Your task to perform on an android device: delete a single message in the gmail app Image 0: 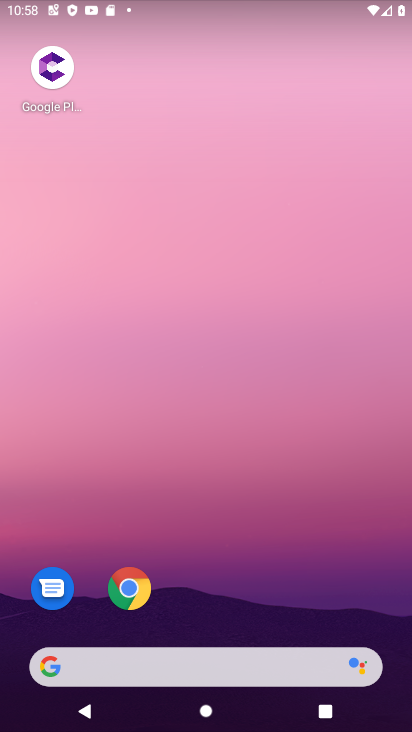
Step 0: drag from (194, 662) to (323, 125)
Your task to perform on an android device: delete a single message in the gmail app Image 1: 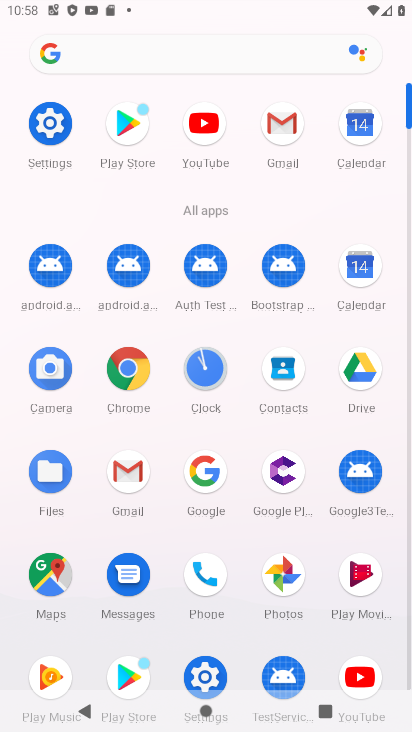
Step 1: click (282, 124)
Your task to perform on an android device: delete a single message in the gmail app Image 2: 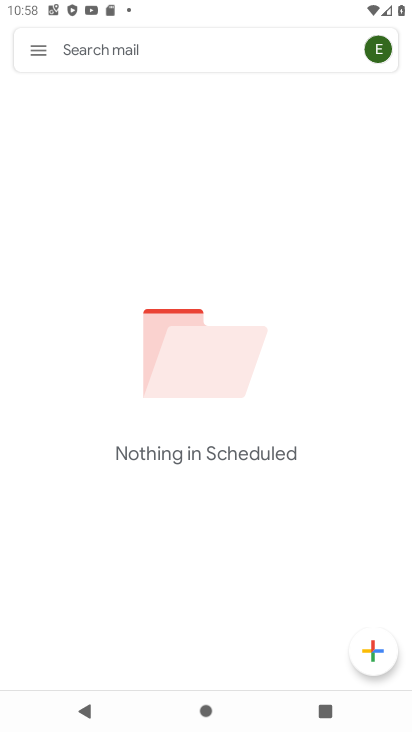
Step 2: click (36, 56)
Your task to perform on an android device: delete a single message in the gmail app Image 3: 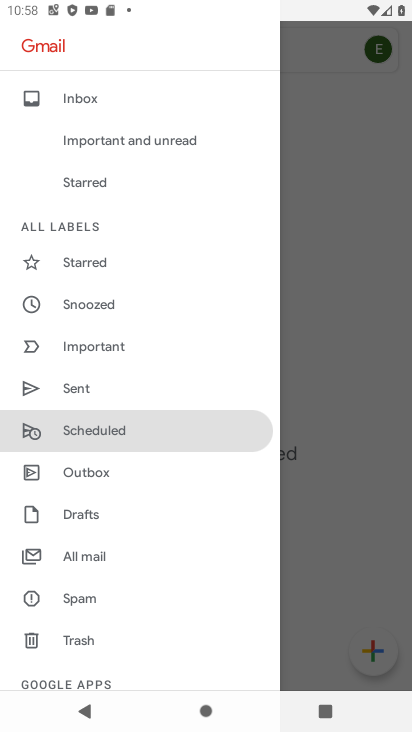
Step 3: click (71, 95)
Your task to perform on an android device: delete a single message in the gmail app Image 4: 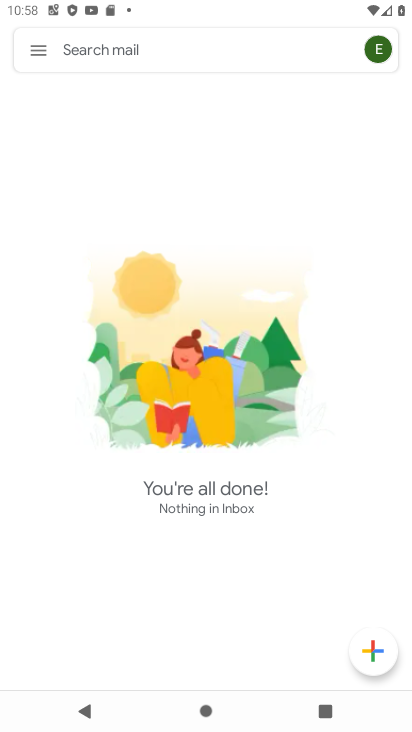
Step 4: click (39, 53)
Your task to perform on an android device: delete a single message in the gmail app Image 5: 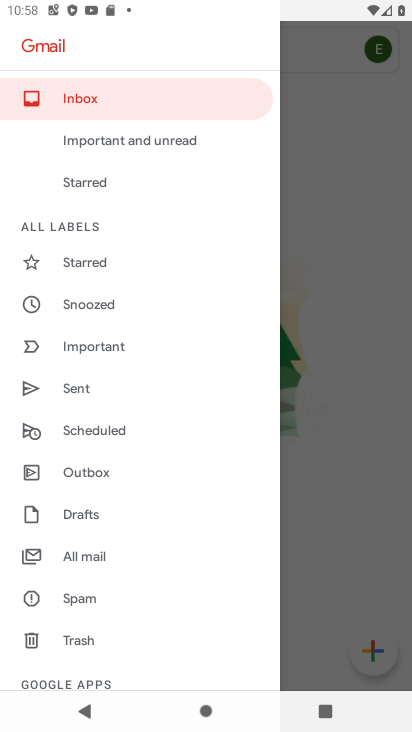
Step 5: click (78, 140)
Your task to perform on an android device: delete a single message in the gmail app Image 6: 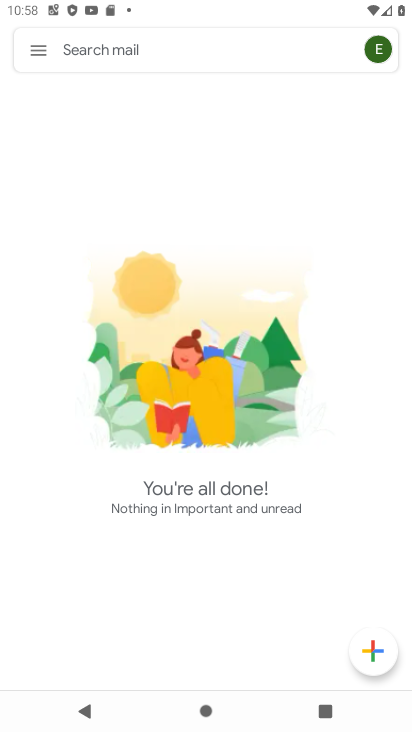
Step 6: click (34, 55)
Your task to perform on an android device: delete a single message in the gmail app Image 7: 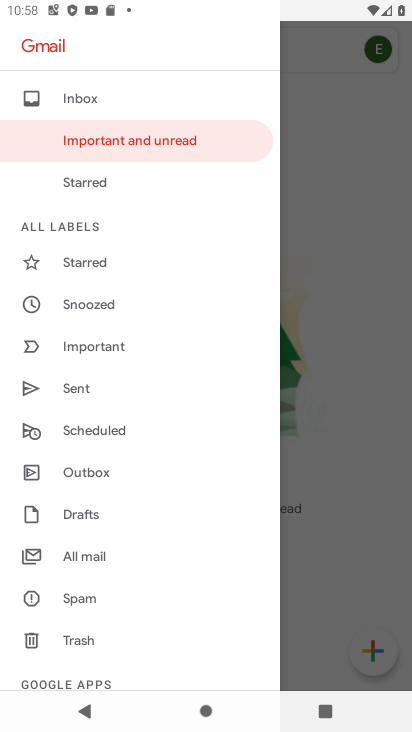
Step 7: click (85, 180)
Your task to perform on an android device: delete a single message in the gmail app Image 8: 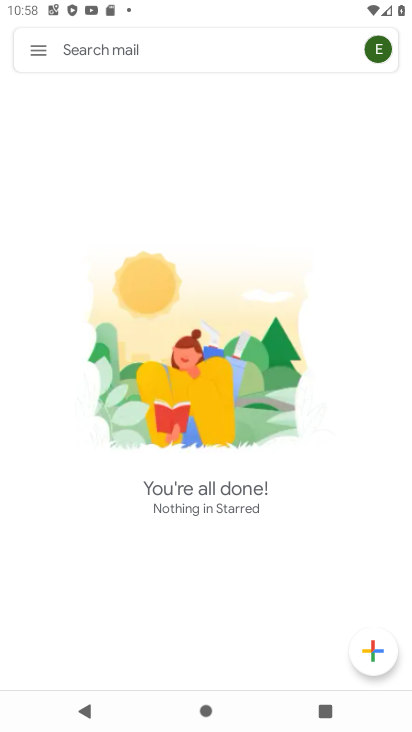
Step 8: click (32, 43)
Your task to perform on an android device: delete a single message in the gmail app Image 9: 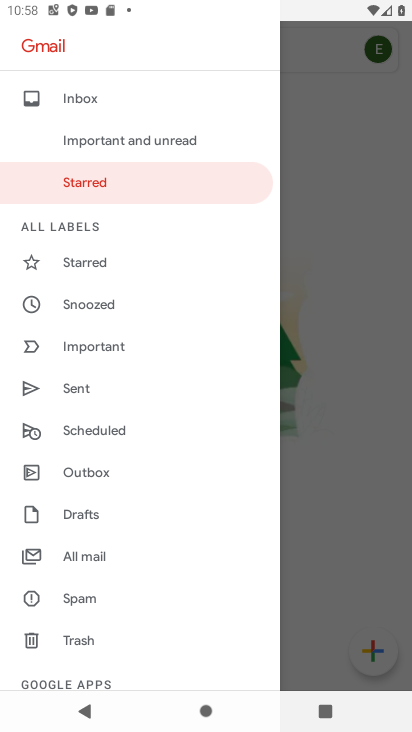
Step 9: click (85, 262)
Your task to perform on an android device: delete a single message in the gmail app Image 10: 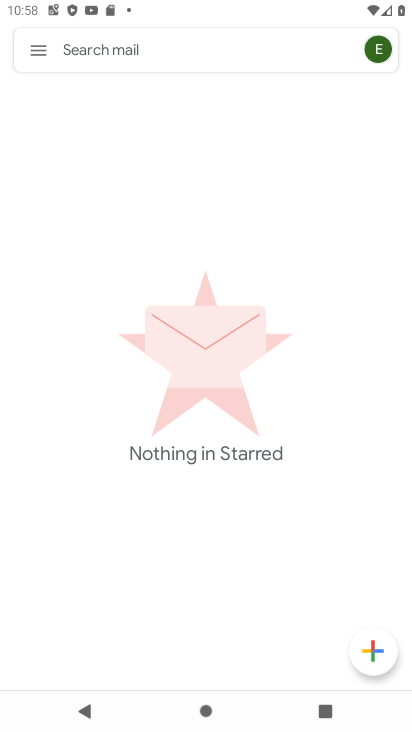
Step 10: click (34, 55)
Your task to perform on an android device: delete a single message in the gmail app Image 11: 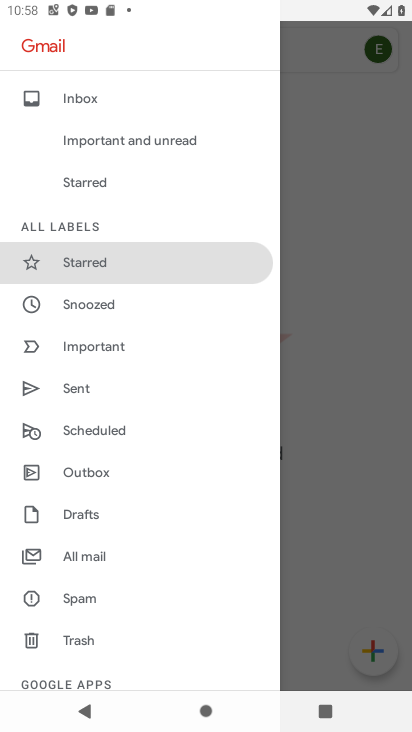
Step 11: click (65, 302)
Your task to perform on an android device: delete a single message in the gmail app Image 12: 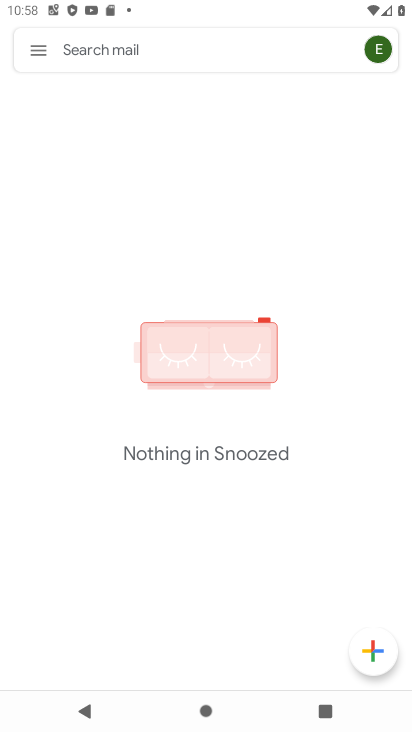
Step 12: click (31, 45)
Your task to perform on an android device: delete a single message in the gmail app Image 13: 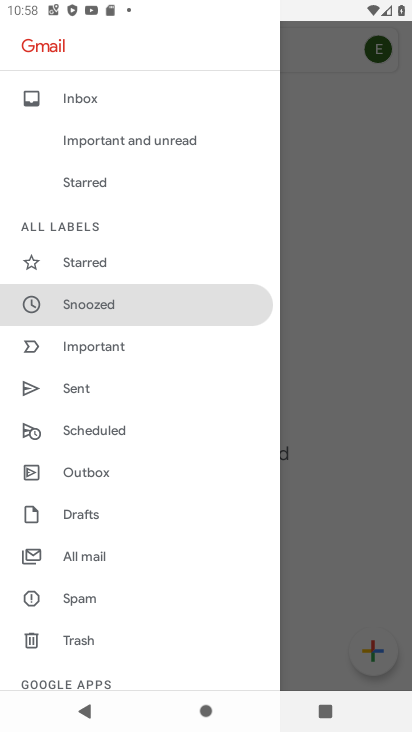
Step 13: click (80, 343)
Your task to perform on an android device: delete a single message in the gmail app Image 14: 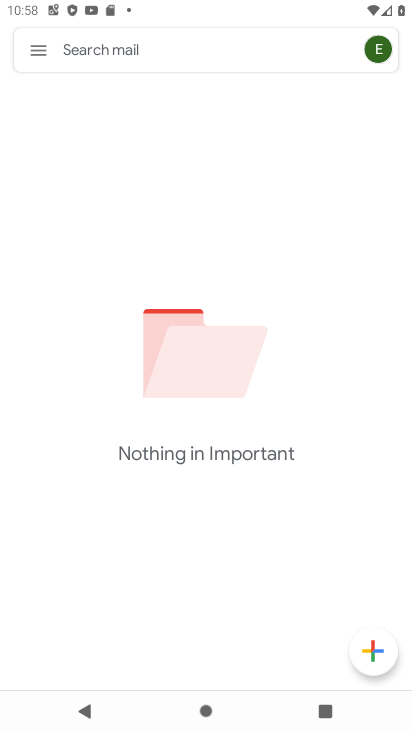
Step 14: click (25, 51)
Your task to perform on an android device: delete a single message in the gmail app Image 15: 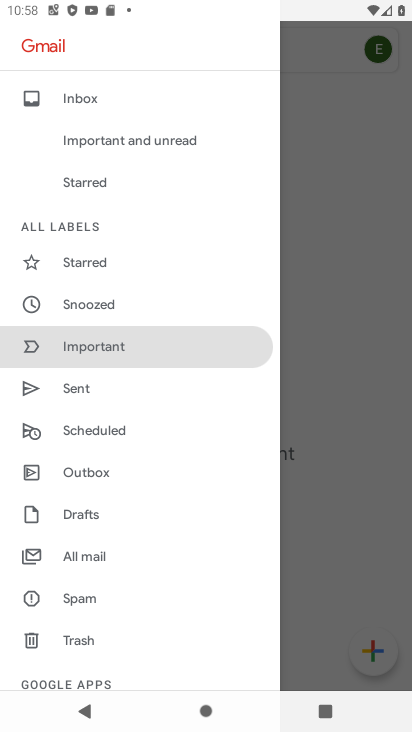
Step 15: click (84, 398)
Your task to perform on an android device: delete a single message in the gmail app Image 16: 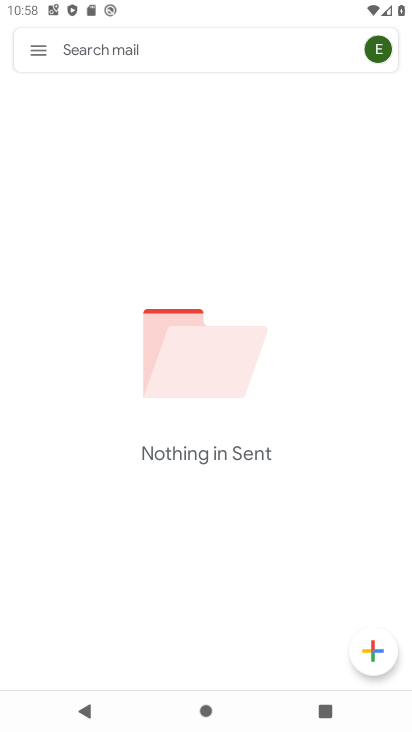
Step 16: click (44, 45)
Your task to perform on an android device: delete a single message in the gmail app Image 17: 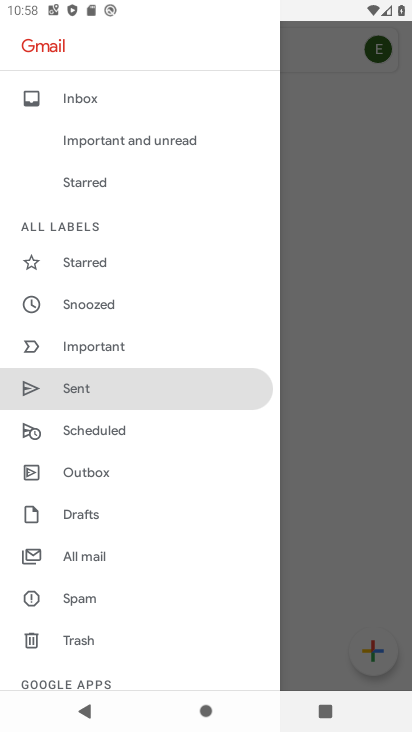
Step 17: click (107, 423)
Your task to perform on an android device: delete a single message in the gmail app Image 18: 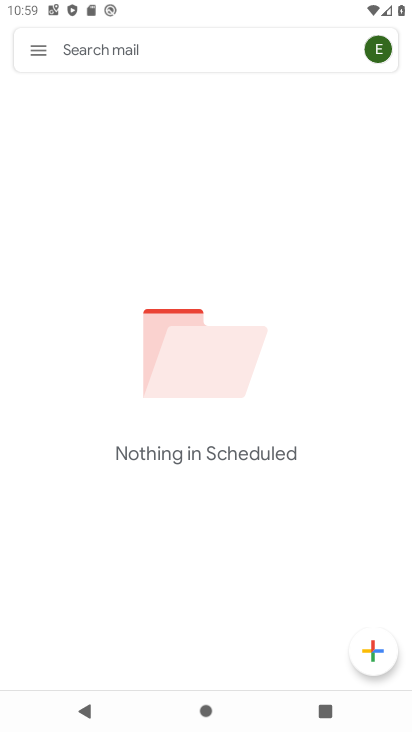
Step 18: task complete